Your task to perform on an android device: Go to accessibility settings Image 0: 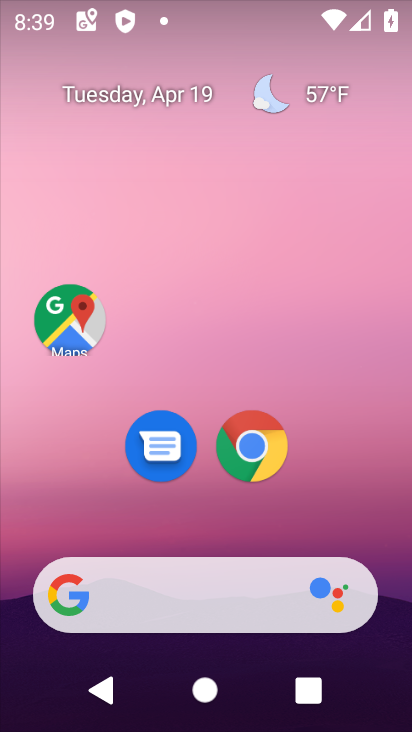
Step 0: drag from (316, 403) to (317, 109)
Your task to perform on an android device: Go to accessibility settings Image 1: 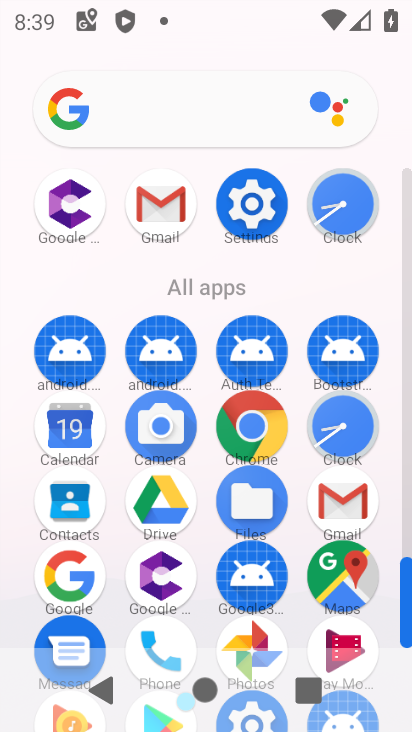
Step 1: click (264, 192)
Your task to perform on an android device: Go to accessibility settings Image 2: 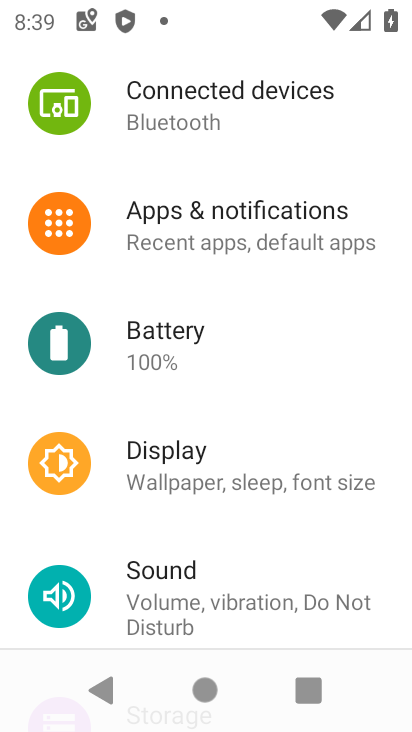
Step 2: drag from (165, 591) to (177, 211)
Your task to perform on an android device: Go to accessibility settings Image 3: 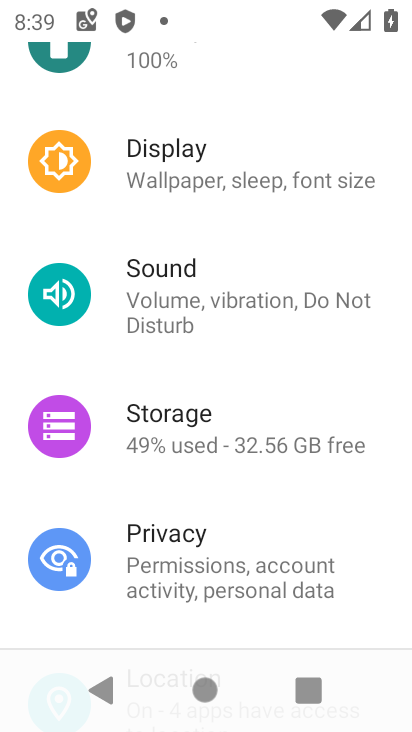
Step 3: drag from (170, 539) to (179, 180)
Your task to perform on an android device: Go to accessibility settings Image 4: 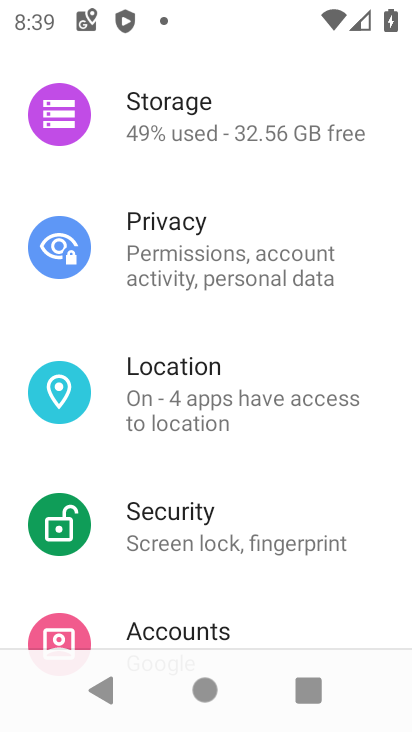
Step 4: drag from (168, 609) to (175, 213)
Your task to perform on an android device: Go to accessibility settings Image 5: 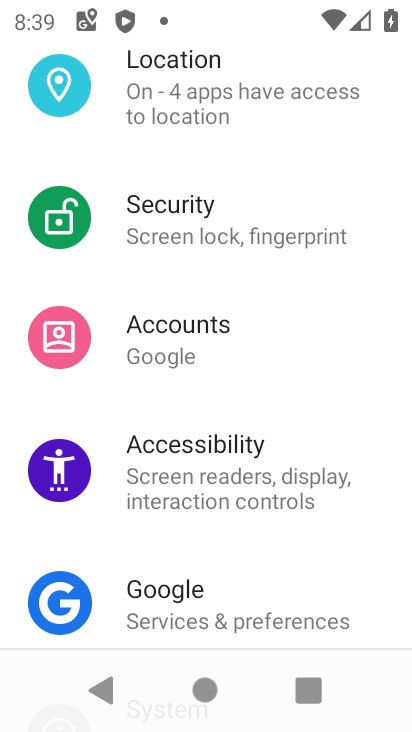
Step 5: click (227, 486)
Your task to perform on an android device: Go to accessibility settings Image 6: 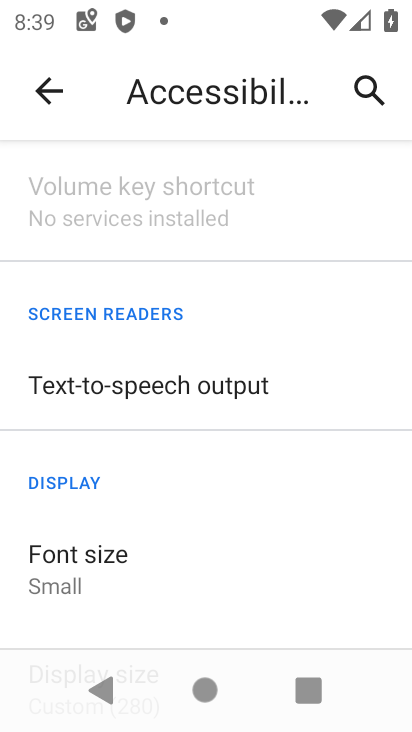
Step 6: task complete